Your task to perform on an android device: Do I have any events today? Image 0: 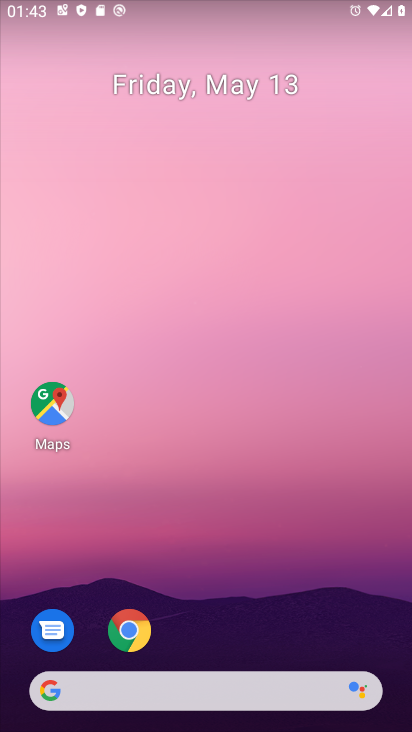
Step 0: drag from (242, 714) to (240, 149)
Your task to perform on an android device: Do I have any events today? Image 1: 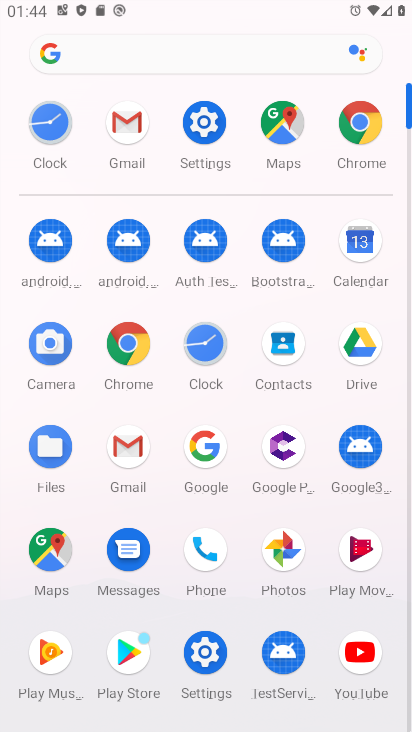
Step 1: click (343, 253)
Your task to perform on an android device: Do I have any events today? Image 2: 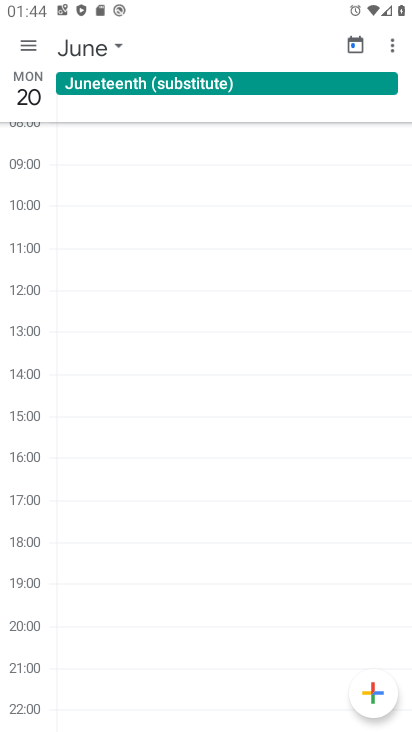
Step 2: click (41, 45)
Your task to perform on an android device: Do I have any events today? Image 3: 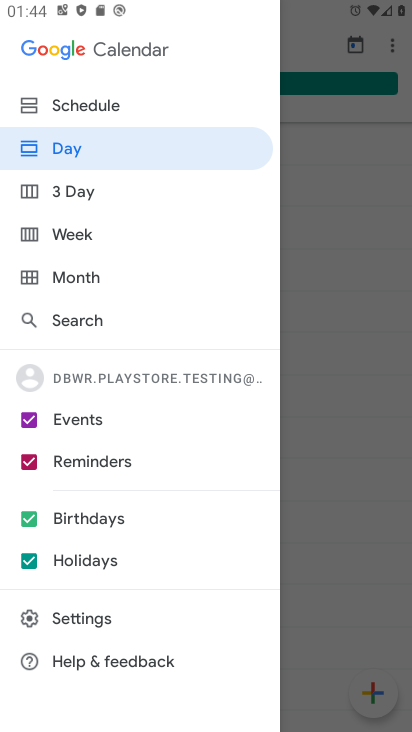
Step 3: click (84, 269)
Your task to perform on an android device: Do I have any events today? Image 4: 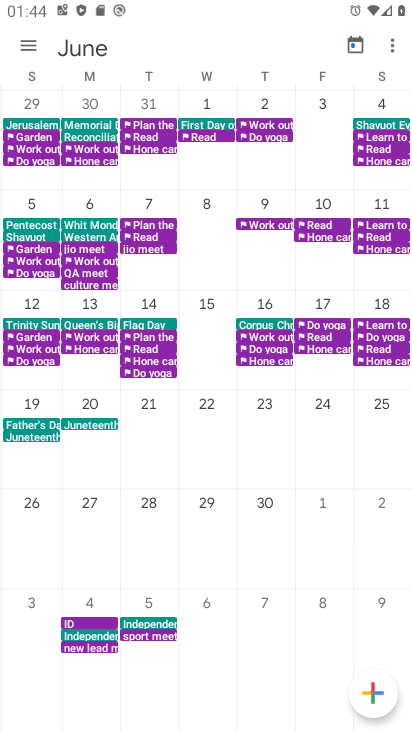
Step 4: drag from (41, 379) to (394, 310)
Your task to perform on an android device: Do I have any events today? Image 5: 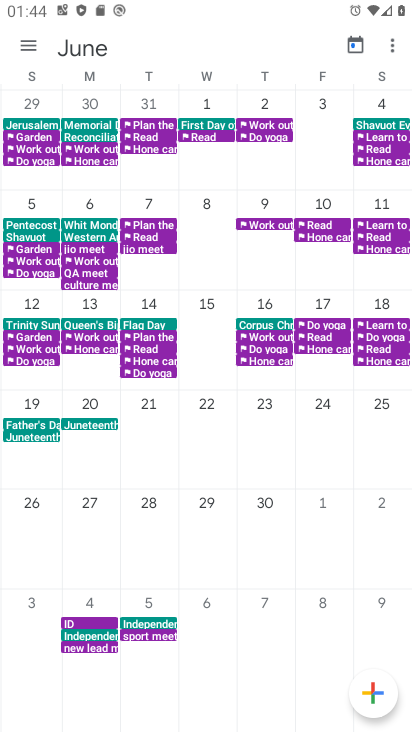
Step 5: drag from (27, 480) to (402, 435)
Your task to perform on an android device: Do I have any events today? Image 6: 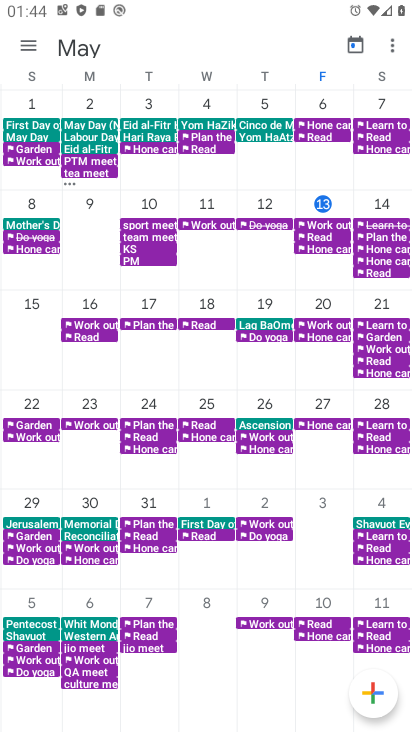
Step 6: click (335, 214)
Your task to perform on an android device: Do I have any events today? Image 7: 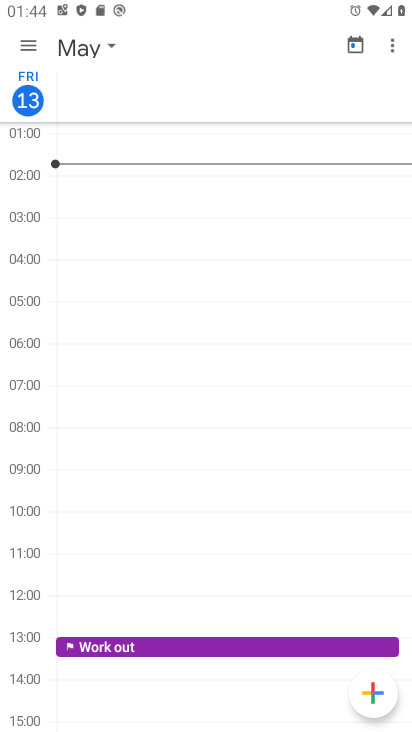
Step 7: task complete